Your task to perform on an android device: What's on my calendar tomorrow? Image 0: 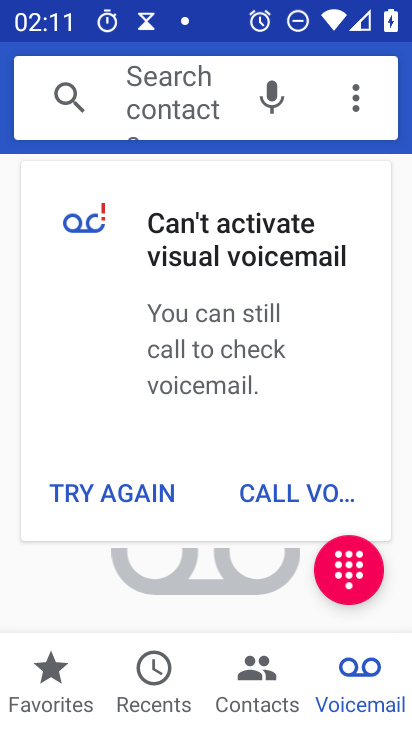
Step 0: press home button
Your task to perform on an android device: What's on my calendar tomorrow? Image 1: 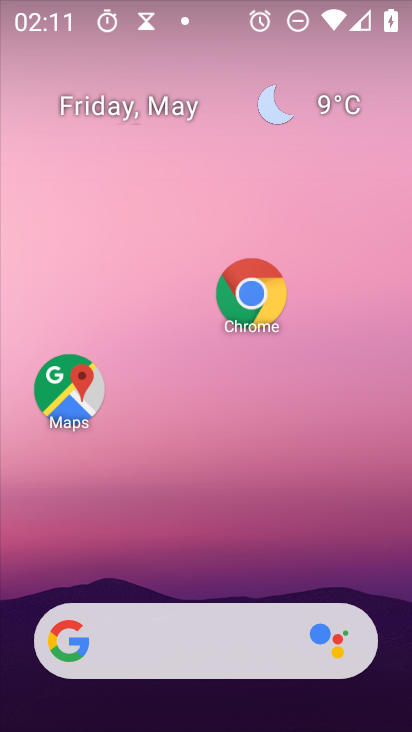
Step 1: drag from (145, 658) to (293, 77)
Your task to perform on an android device: What's on my calendar tomorrow? Image 2: 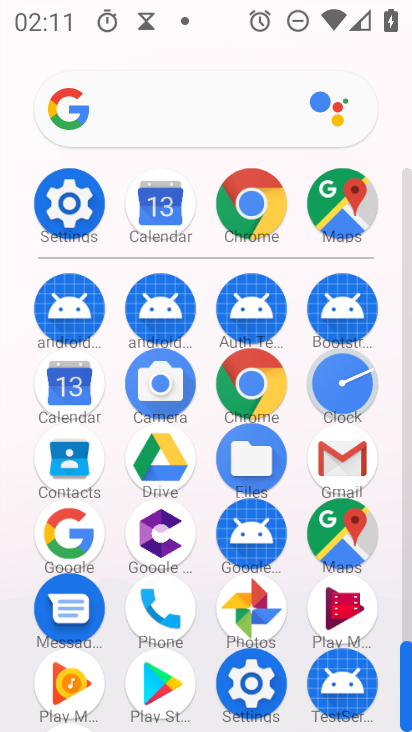
Step 2: click (76, 406)
Your task to perform on an android device: What's on my calendar tomorrow? Image 3: 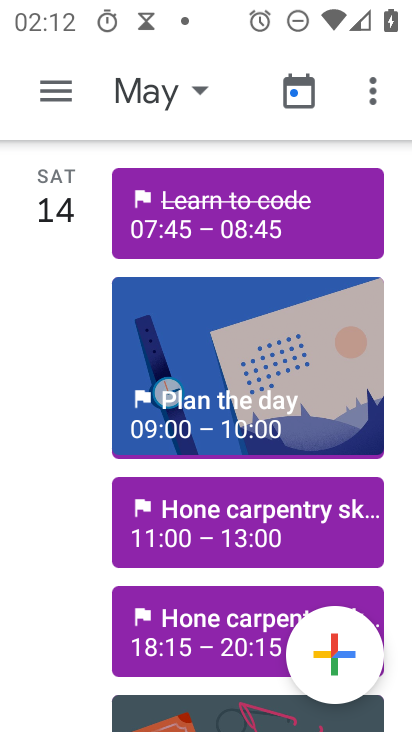
Step 3: click (196, 234)
Your task to perform on an android device: What's on my calendar tomorrow? Image 4: 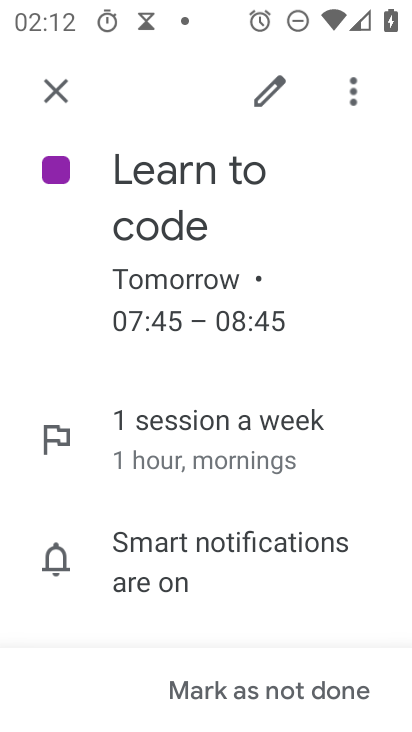
Step 4: task complete